Your task to perform on an android device: Search for the new steph curry shoes on Amazon. Image 0: 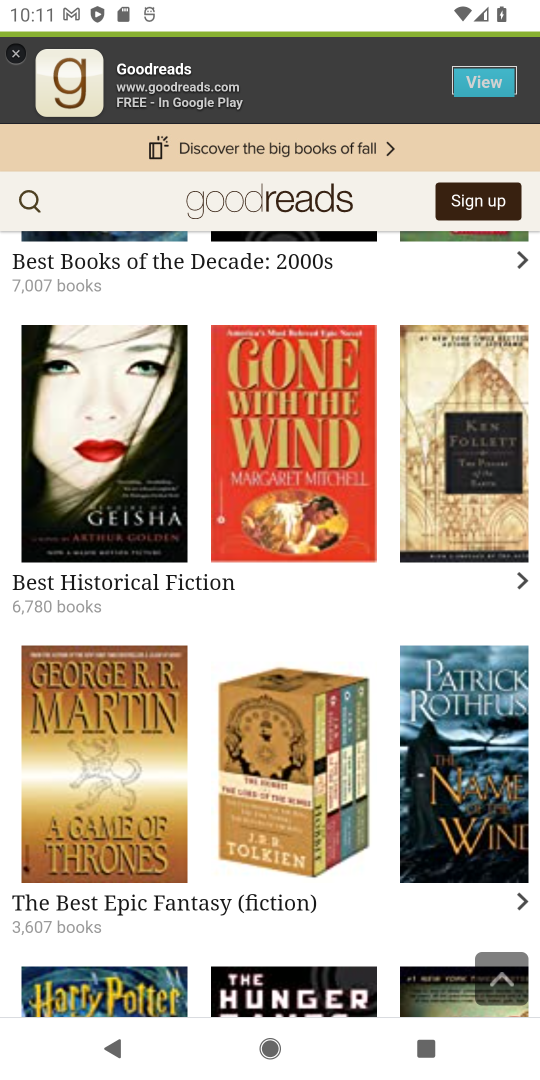
Step 0: press home button
Your task to perform on an android device: Search for the new steph curry shoes on Amazon. Image 1: 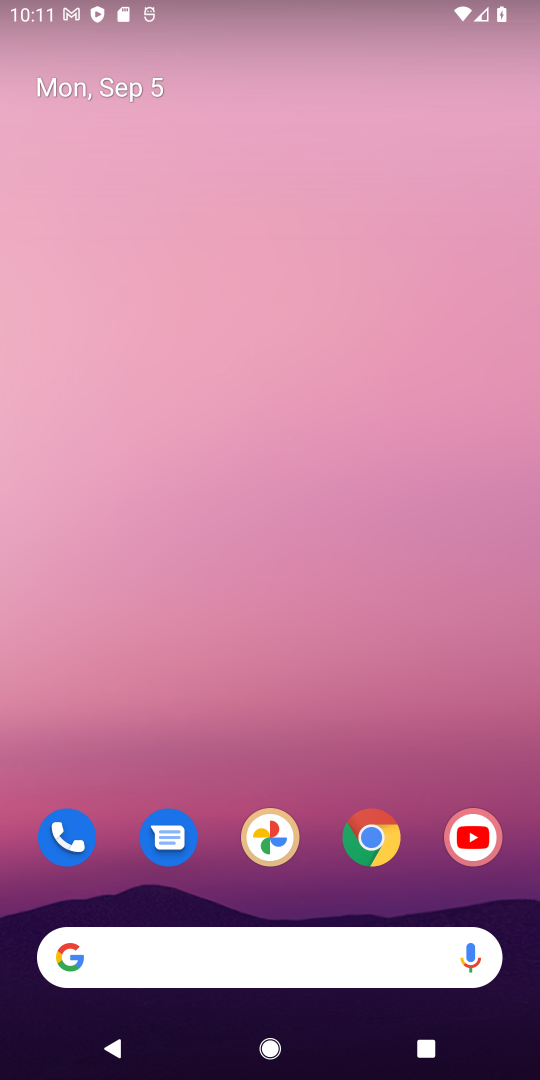
Step 1: drag from (321, 806) to (316, 422)
Your task to perform on an android device: Search for the new steph curry shoes on Amazon. Image 2: 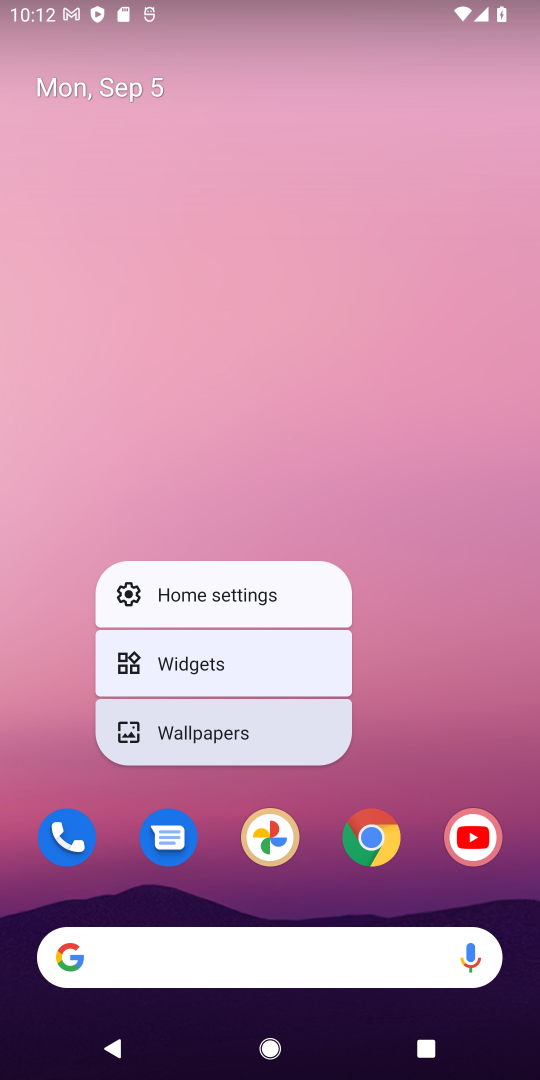
Step 2: click (408, 768)
Your task to perform on an android device: Search for the new steph curry shoes on Amazon. Image 3: 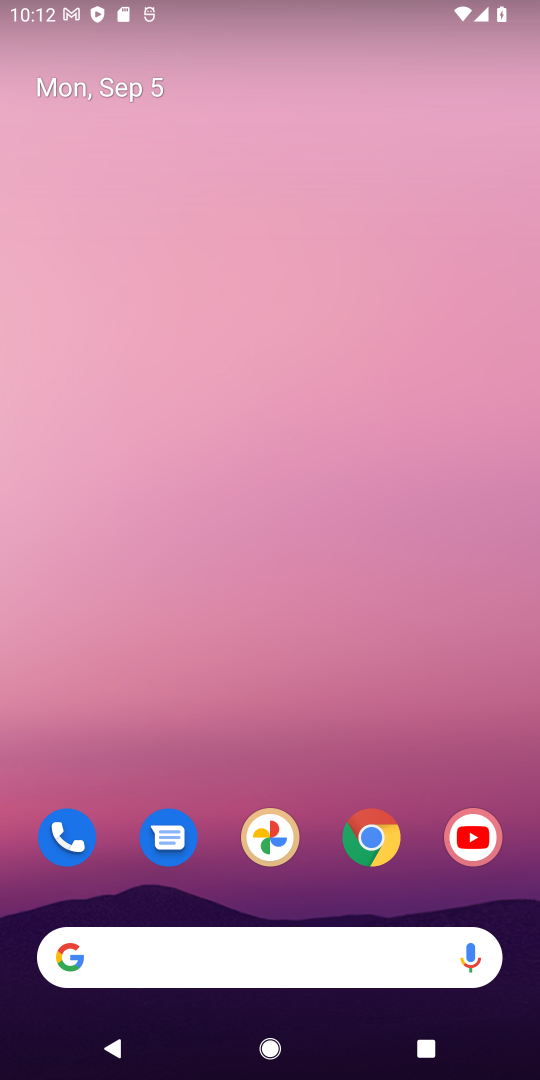
Step 3: drag from (404, 771) to (204, 9)
Your task to perform on an android device: Search for the new steph curry shoes on Amazon. Image 4: 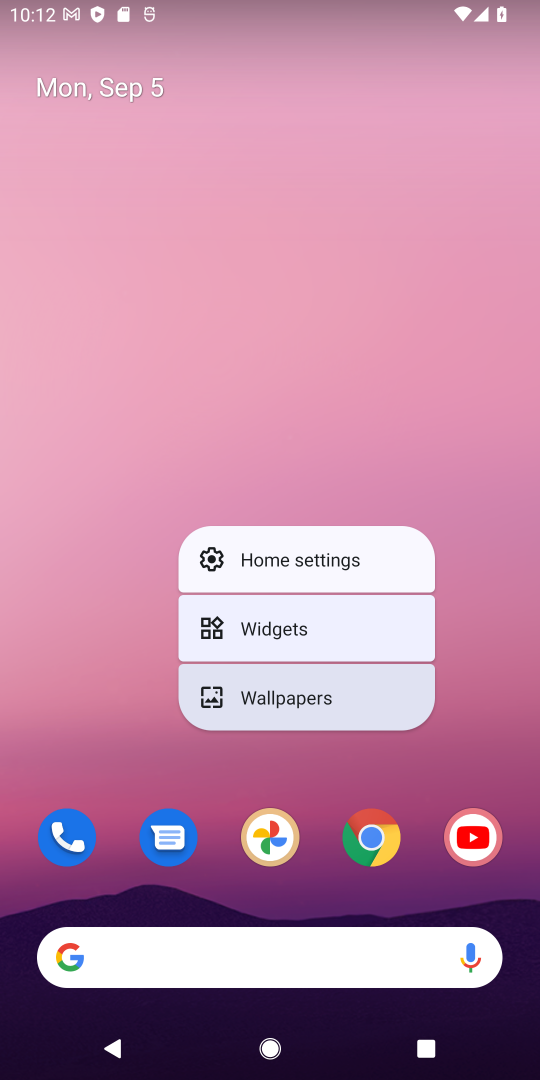
Step 4: click (107, 670)
Your task to perform on an android device: Search for the new steph curry shoes on Amazon. Image 5: 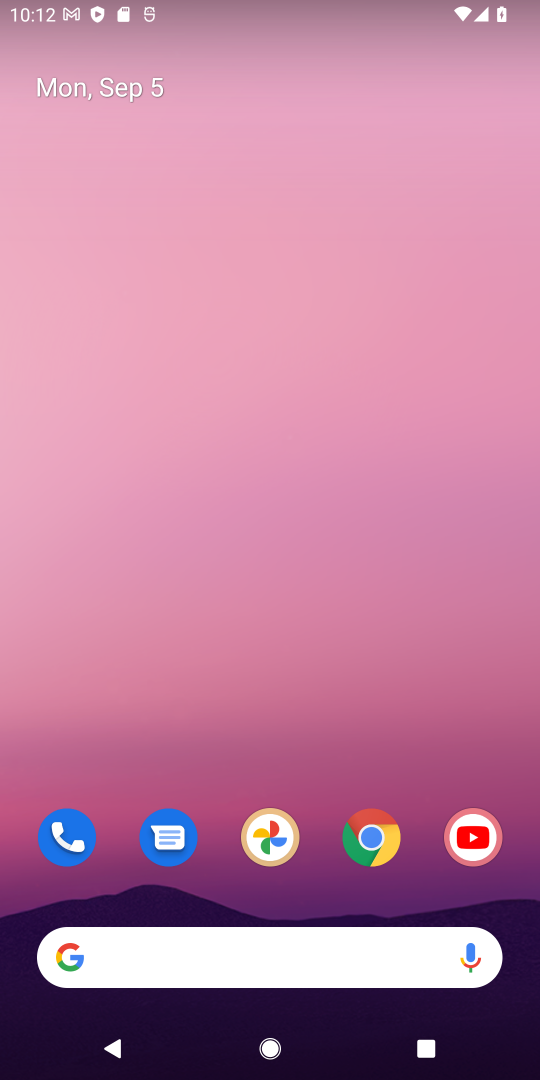
Step 5: drag from (239, 705) to (243, 292)
Your task to perform on an android device: Search for the new steph curry shoes on Amazon. Image 6: 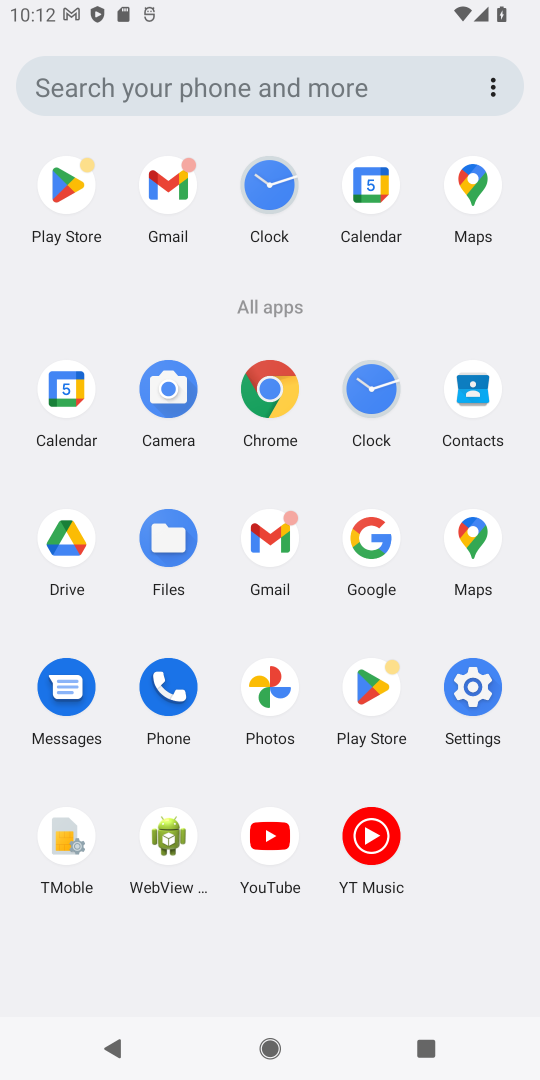
Step 6: click (267, 386)
Your task to perform on an android device: Search for the new steph curry shoes on Amazon. Image 7: 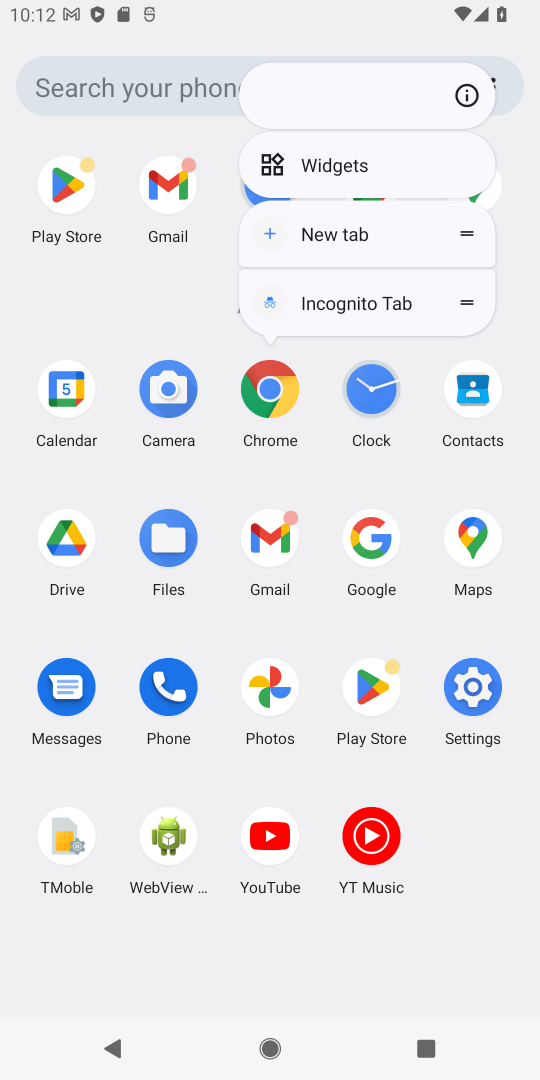
Step 7: click (267, 393)
Your task to perform on an android device: Search for the new steph curry shoes on Amazon. Image 8: 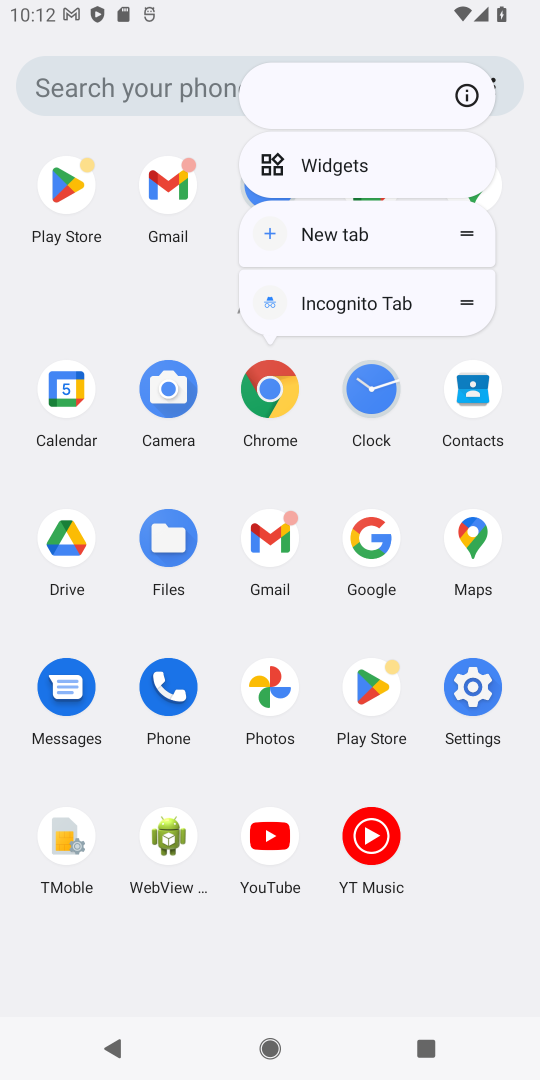
Step 8: click (266, 398)
Your task to perform on an android device: Search for the new steph curry shoes on Amazon. Image 9: 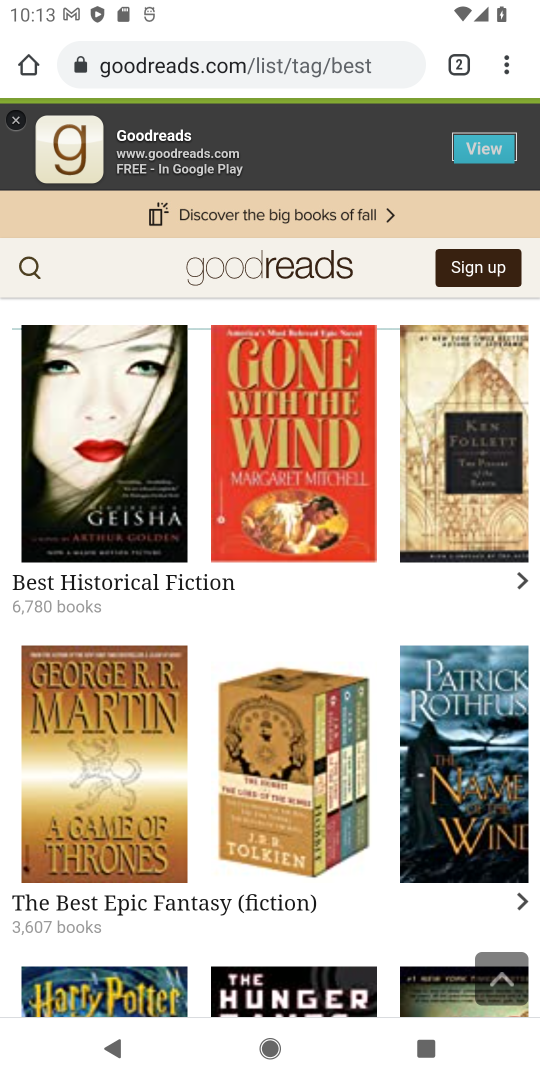
Step 9: click (466, 63)
Your task to perform on an android device: Search for the new steph curry shoes on Amazon. Image 10: 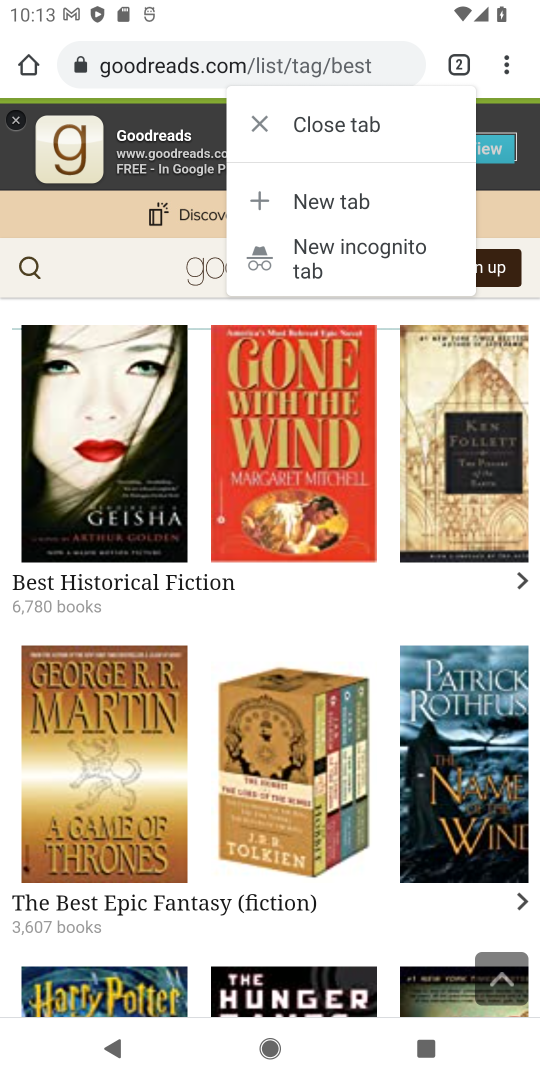
Step 10: click (264, 124)
Your task to perform on an android device: Search for the new steph curry shoes on Amazon. Image 11: 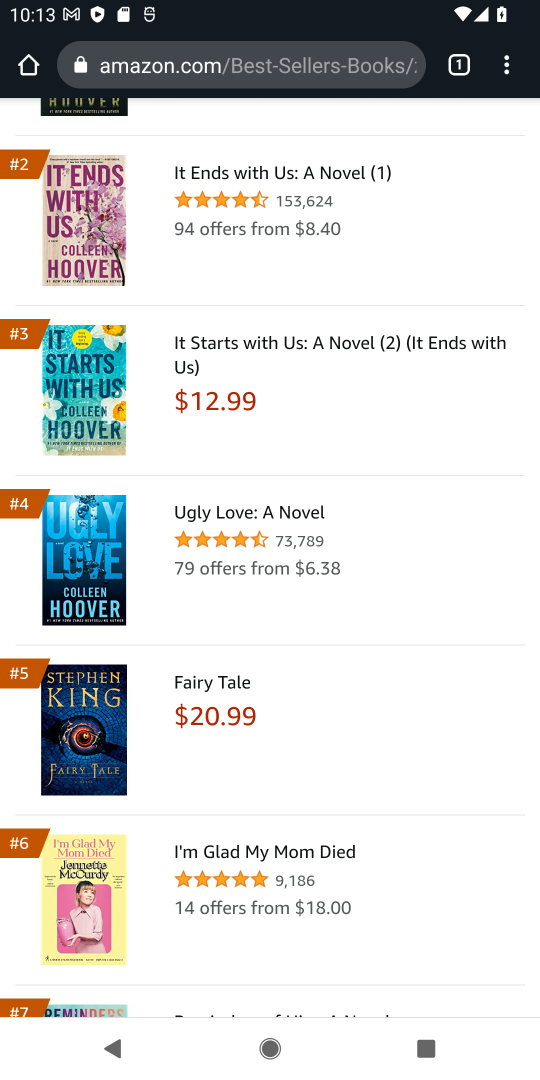
Step 11: click (333, 72)
Your task to perform on an android device: Search for the new steph curry shoes on Amazon. Image 12: 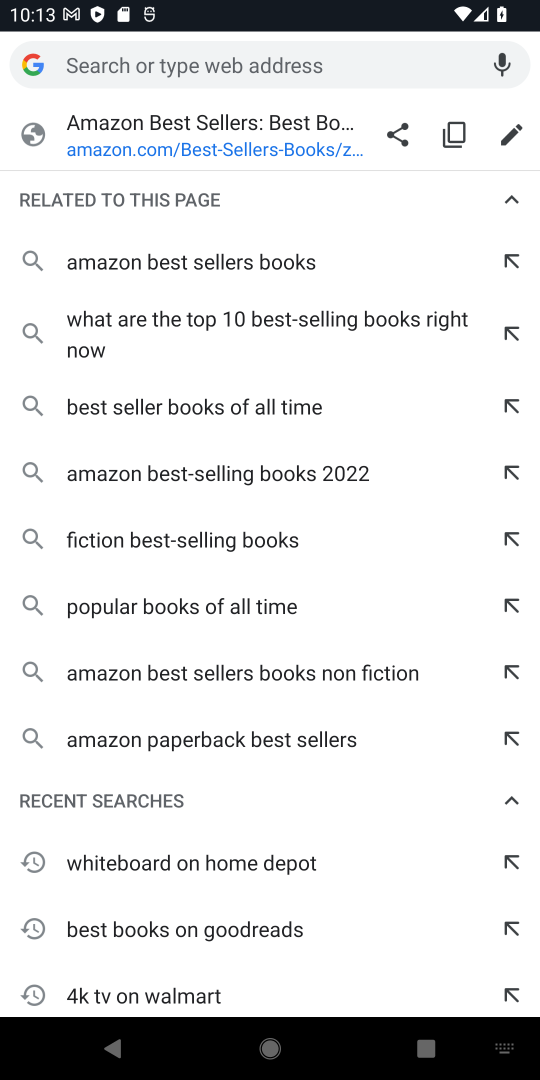
Step 12: type "new steph curry shoes on Amazon"
Your task to perform on an android device: Search for the new steph curry shoes on Amazon. Image 13: 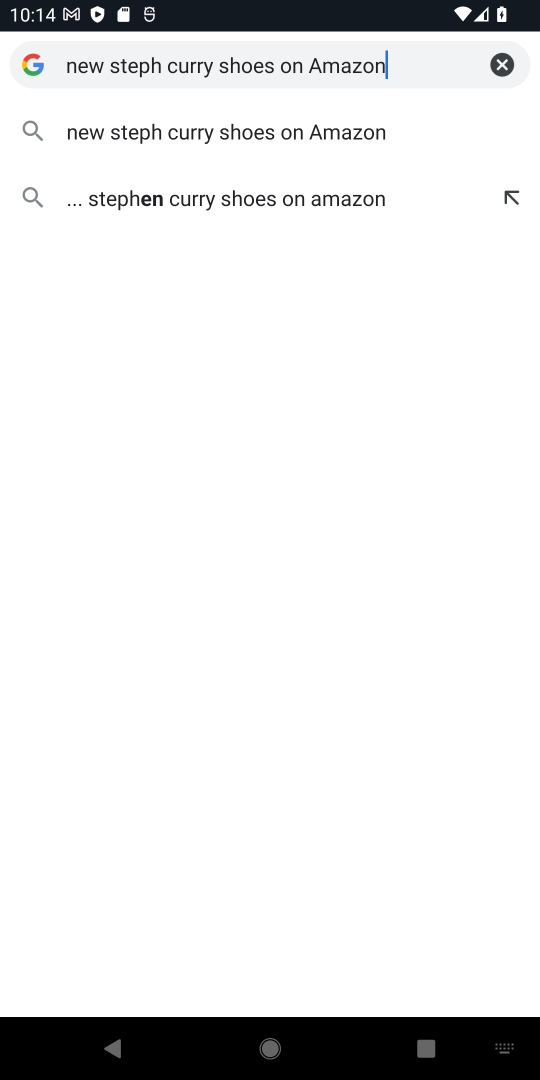
Step 13: click (205, 135)
Your task to perform on an android device: Search for the new steph curry shoes on Amazon. Image 14: 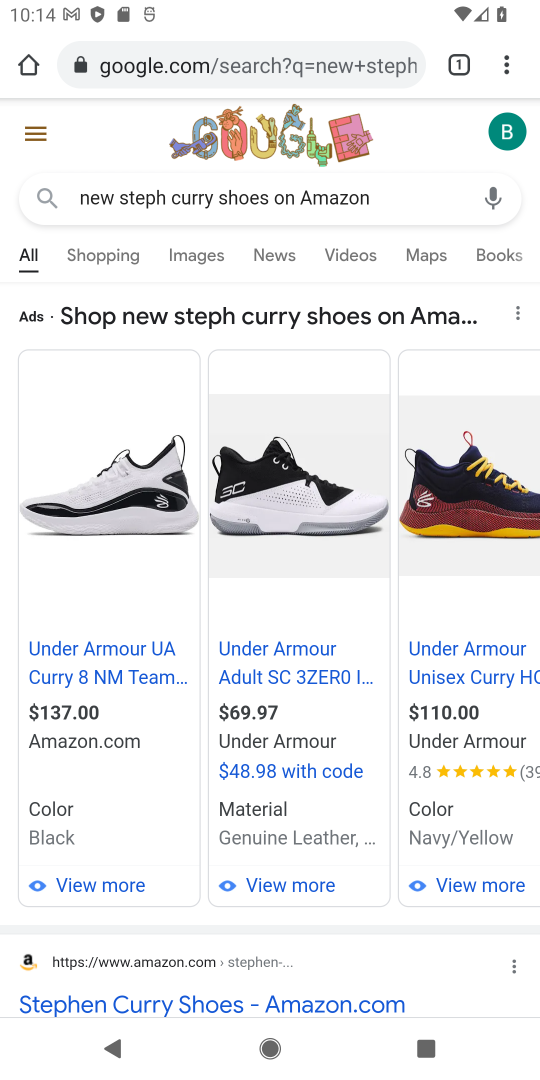
Step 14: click (281, 994)
Your task to perform on an android device: Search for the new steph curry shoes on Amazon. Image 15: 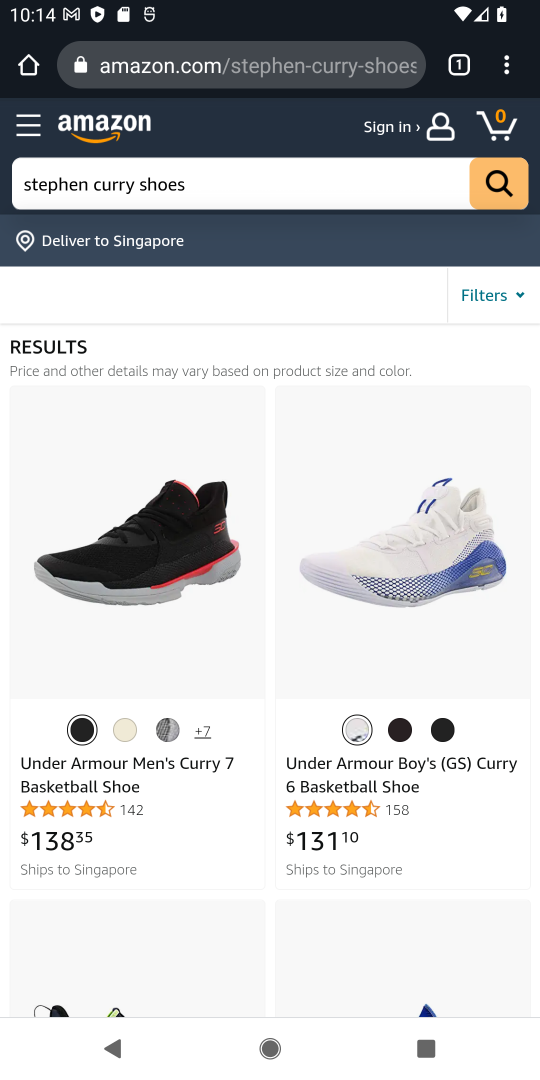
Step 15: drag from (275, 882) to (285, 282)
Your task to perform on an android device: Search for the new steph curry shoes on Amazon. Image 16: 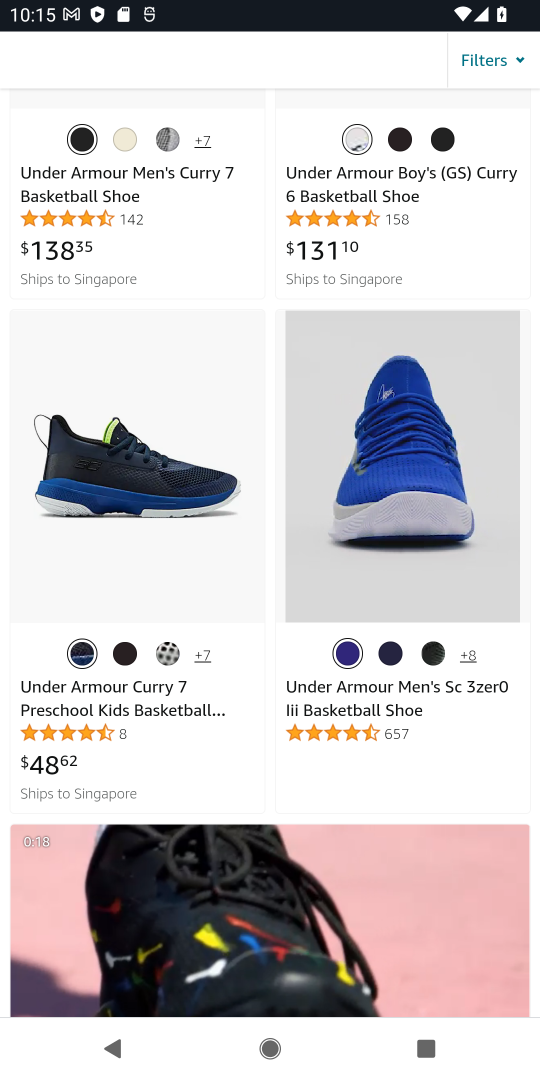
Step 16: drag from (282, 360) to (276, 236)
Your task to perform on an android device: Search for the new steph curry shoes on Amazon. Image 17: 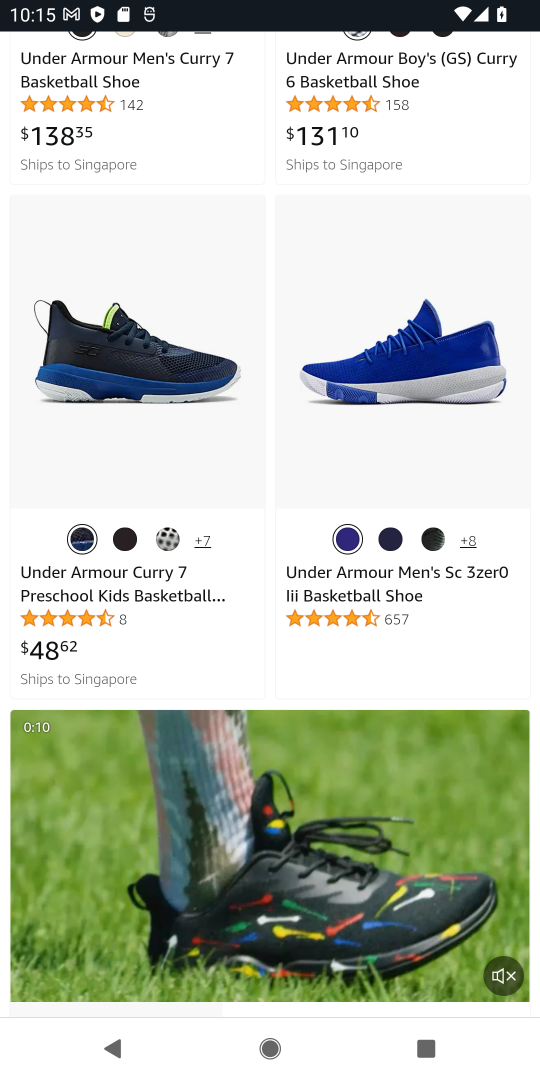
Step 17: drag from (258, 910) to (284, 312)
Your task to perform on an android device: Search for the new steph curry shoes on Amazon. Image 18: 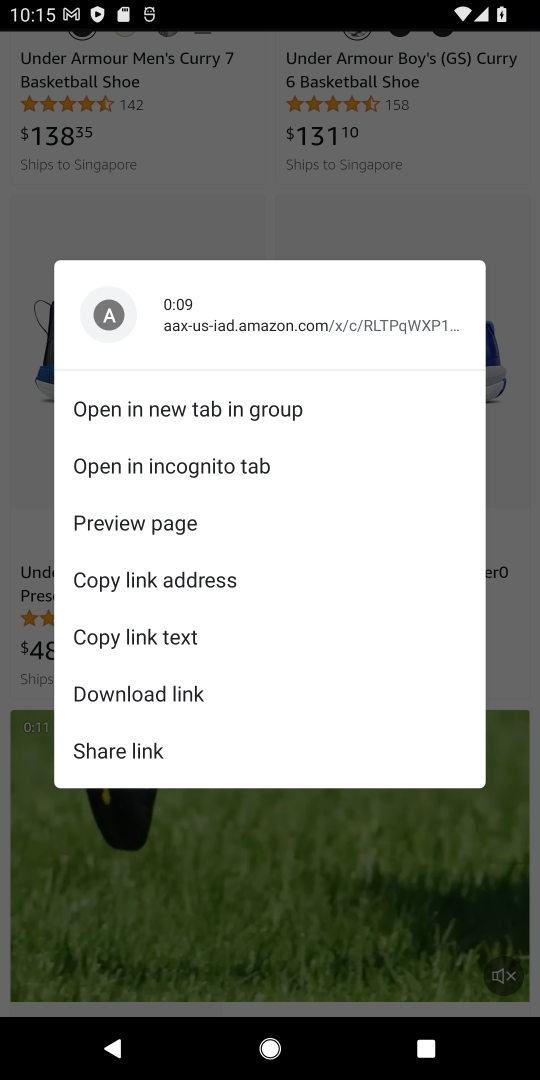
Step 18: click (216, 197)
Your task to perform on an android device: Search for the new steph curry shoes on Amazon. Image 19: 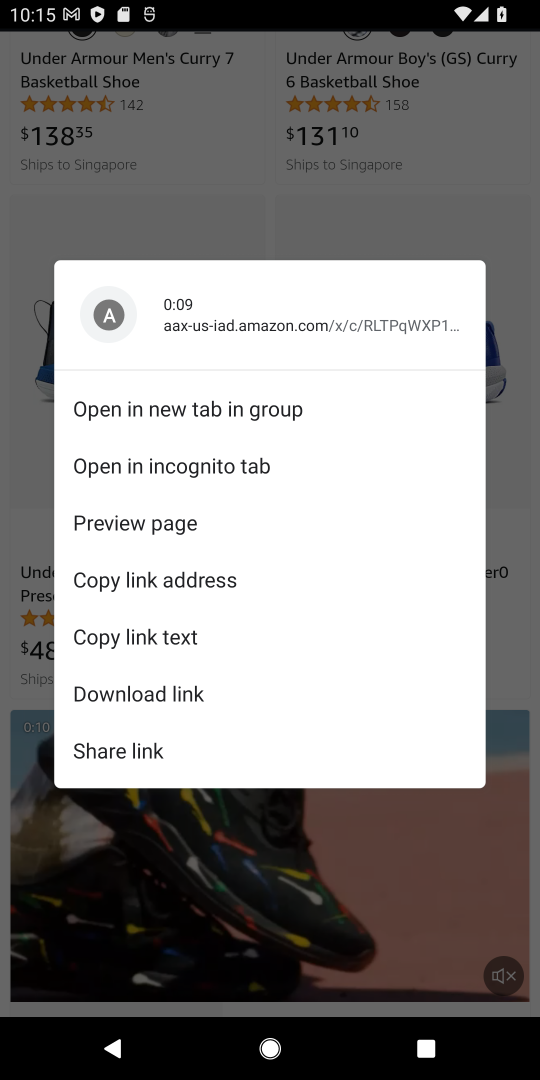
Step 19: task complete